Your task to perform on an android device: stop showing notifications on the lock screen Image 0: 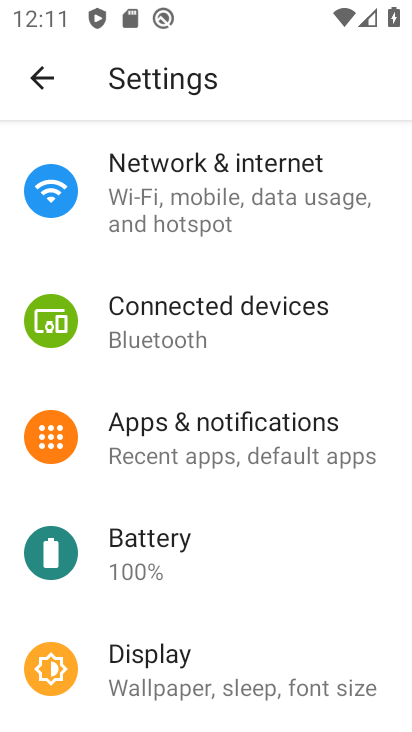
Step 0: press back button
Your task to perform on an android device: stop showing notifications on the lock screen Image 1: 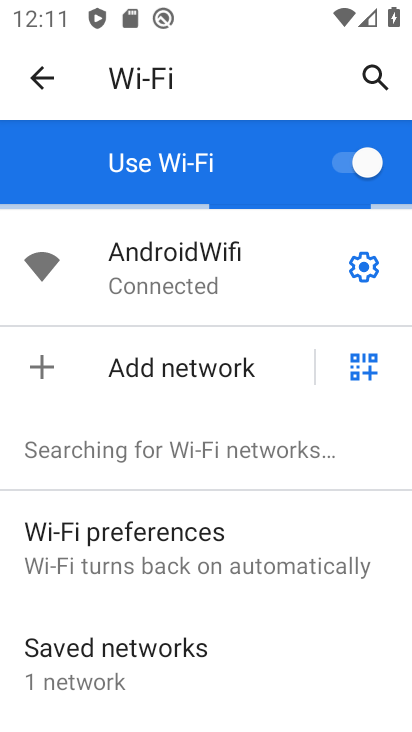
Step 1: press home button
Your task to perform on an android device: stop showing notifications on the lock screen Image 2: 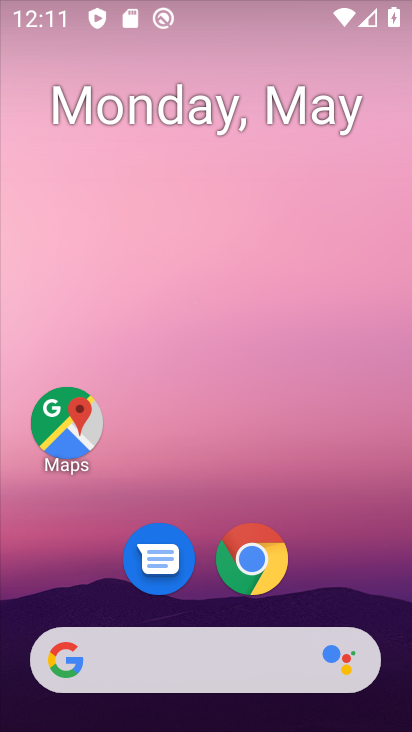
Step 2: drag from (341, 563) to (256, 41)
Your task to perform on an android device: stop showing notifications on the lock screen Image 3: 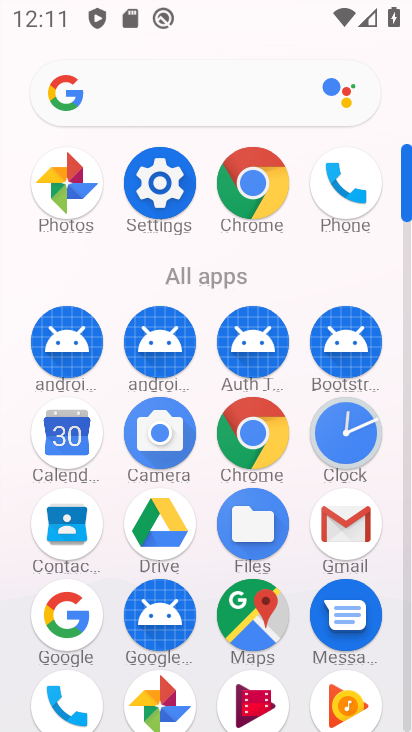
Step 3: drag from (7, 581) to (2, 196)
Your task to perform on an android device: stop showing notifications on the lock screen Image 4: 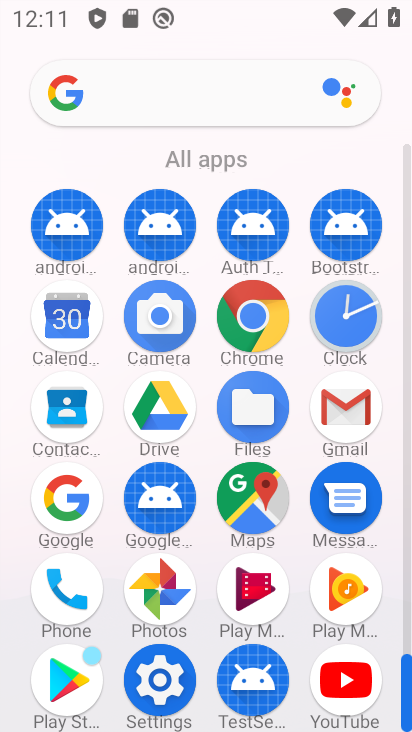
Step 4: click (160, 679)
Your task to perform on an android device: stop showing notifications on the lock screen Image 5: 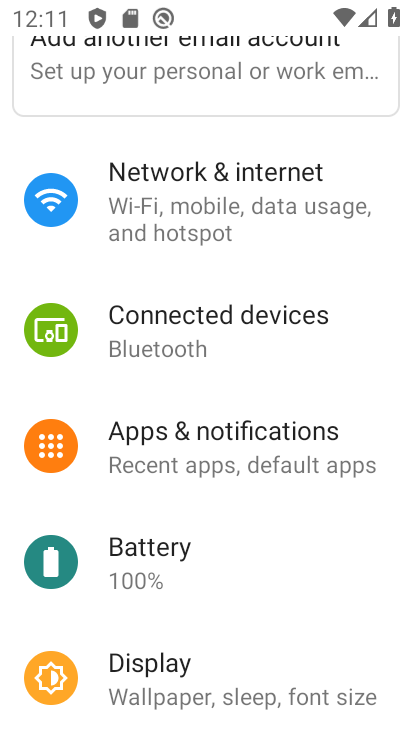
Step 5: click (247, 433)
Your task to perform on an android device: stop showing notifications on the lock screen Image 6: 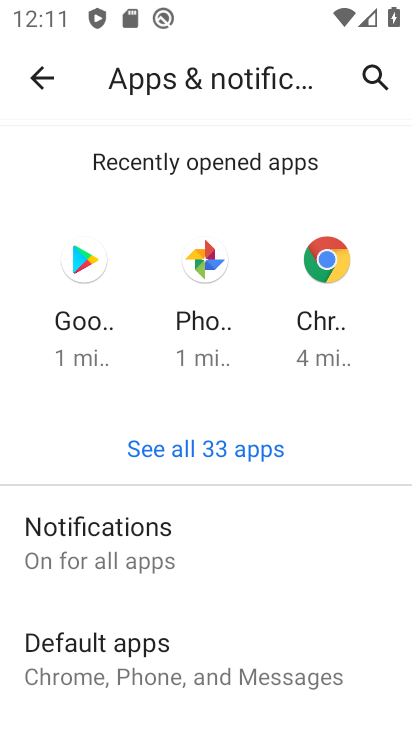
Step 6: click (144, 540)
Your task to perform on an android device: stop showing notifications on the lock screen Image 7: 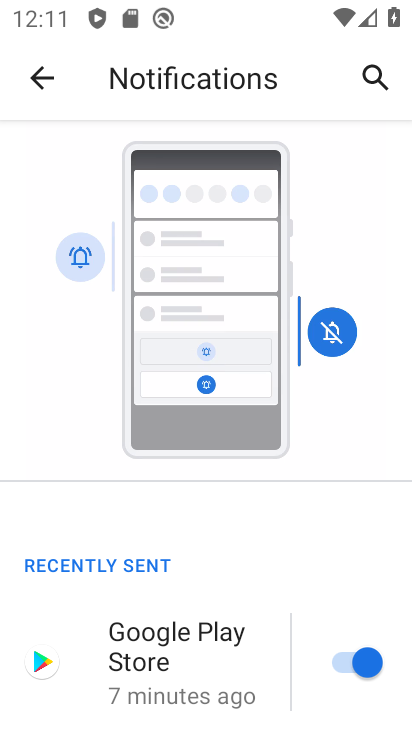
Step 7: drag from (215, 529) to (253, 133)
Your task to perform on an android device: stop showing notifications on the lock screen Image 8: 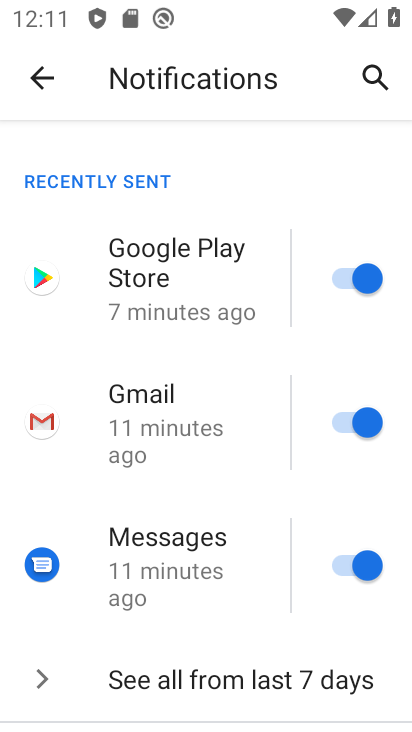
Step 8: drag from (228, 592) to (224, 192)
Your task to perform on an android device: stop showing notifications on the lock screen Image 9: 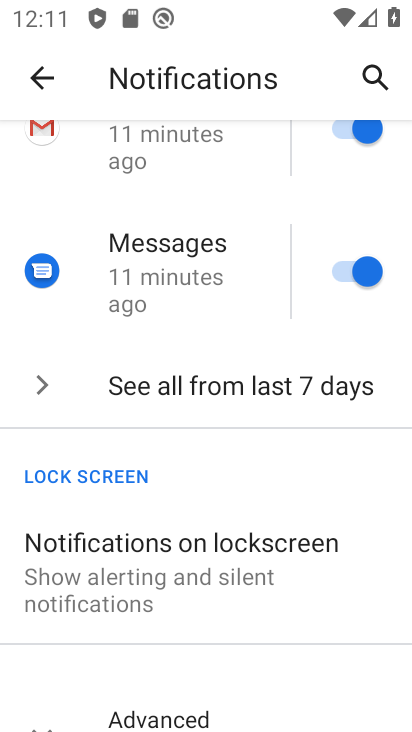
Step 9: drag from (172, 614) to (188, 209)
Your task to perform on an android device: stop showing notifications on the lock screen Image 10: 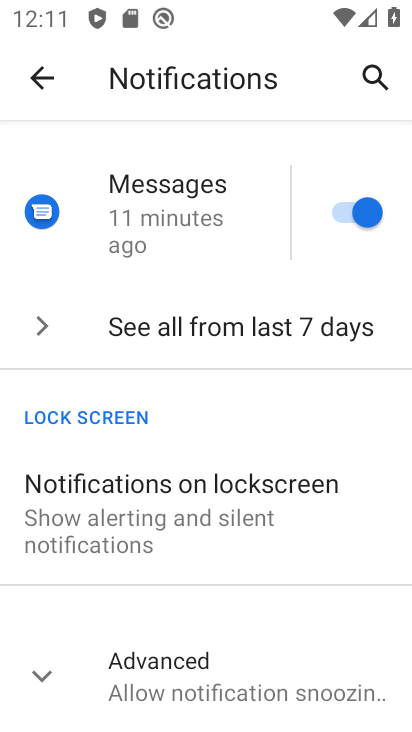
Step 10: click (55, 666)
Your task to perform on an android device: stop showing notifications on the lock screen Image 11: 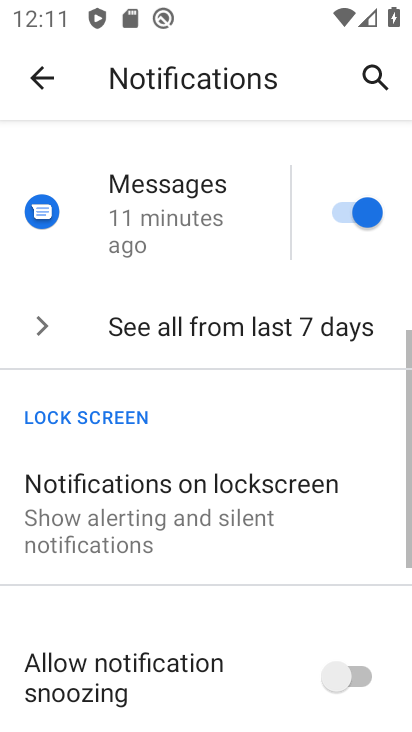
Step 11: drag from (274, 606) to (279, 186)
Your task to perform on an android device: stop showing notifications on the lock screen Image 12: 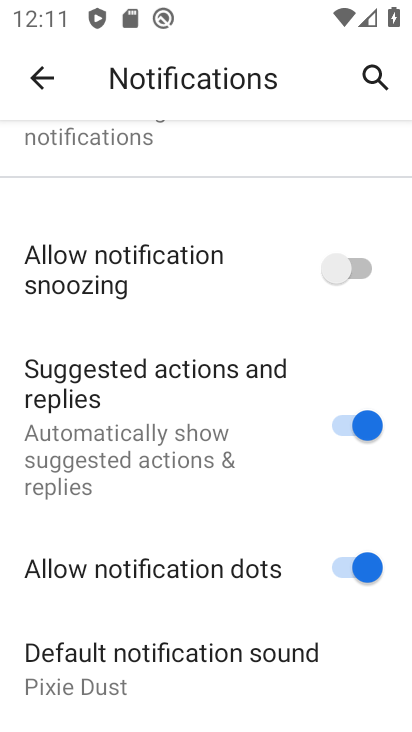
Step 12: click (220, 147)
Your task to perform on an android device: stop showing notifications on the lock screen Image 13: 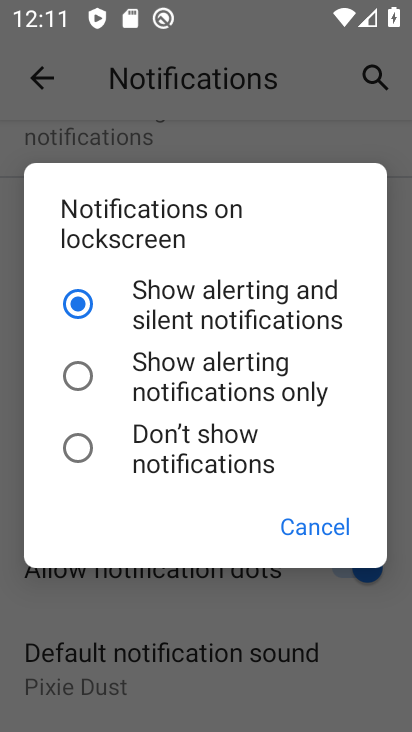
Step 13: click (149, 469)
Your task to perform on an android device: stop showing notifications on the lock screen Image 14: 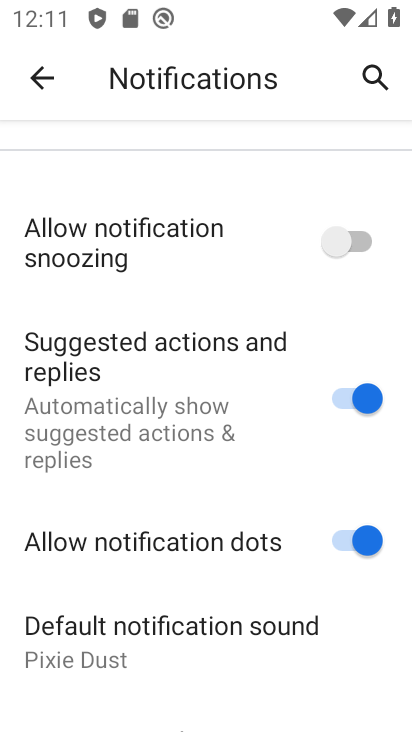
Step 14: task complete